Your task to perform on an android device: What's on my calendar tomorrow? Image 0: 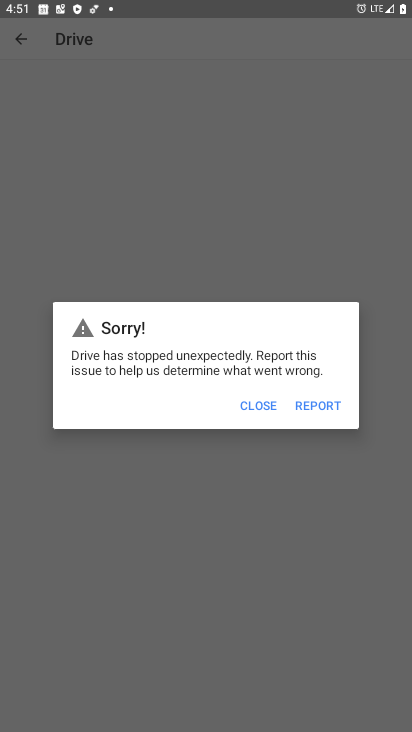
Step 0: press home button
Your task to perform on an android device: What's on my calendar tomorrow? Image 1: 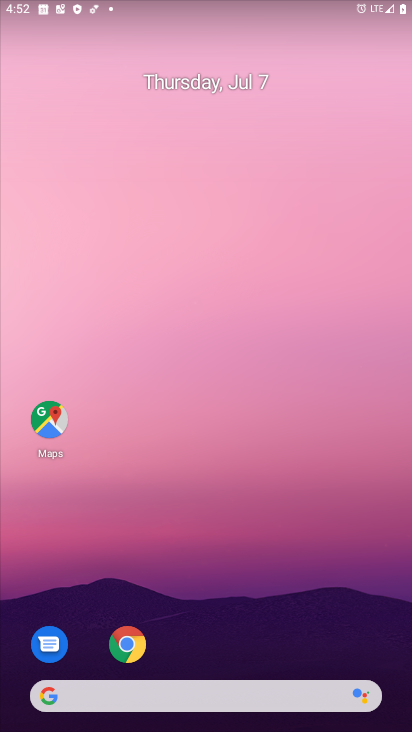
Step 1: drag from (210, 652) to (166, 212)
Your task to perform on an android device: What's on my calendar tomorrow? Image 2: 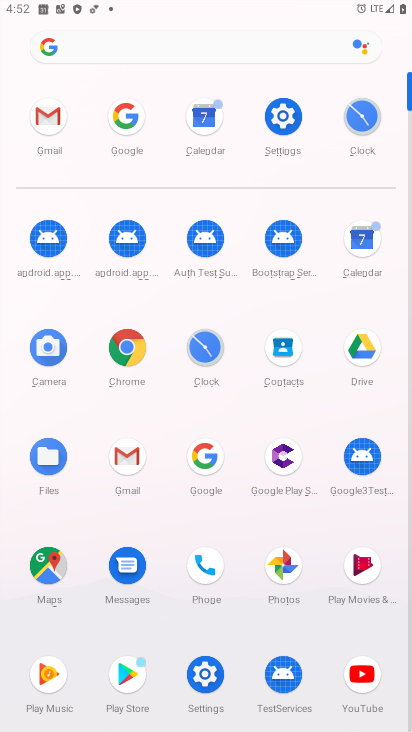
Step 2: click (362, 245)
Your task to perform on an android device: What's on my calendar tomorrow? Image 3: 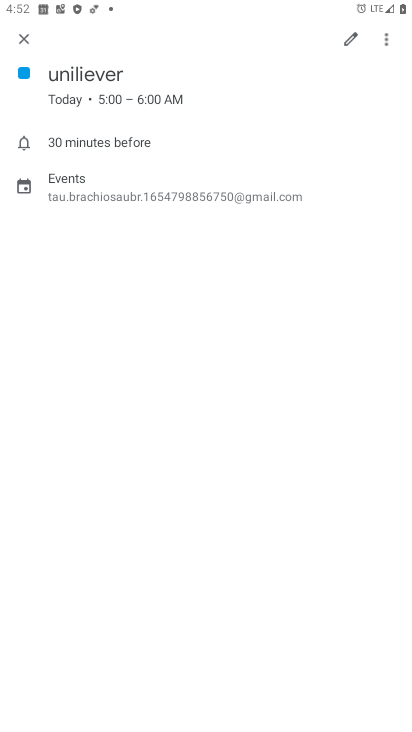
Step 3: press back button
Your task to perform on an android device: What's on my calendar tomorrow? Image 4: 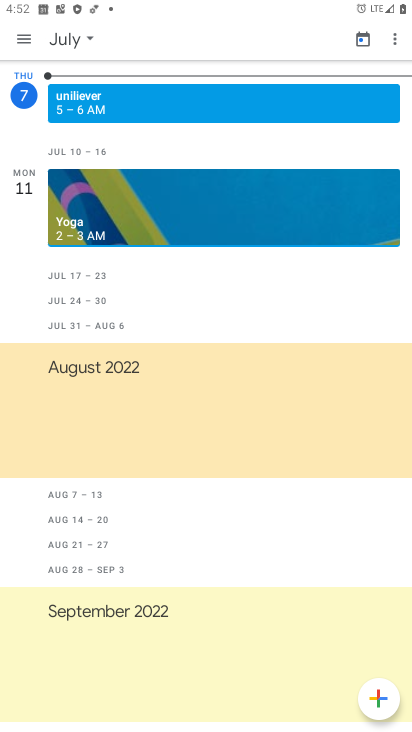
Step 4: click (79, 35)
Your task to perform on an android device: What's on my calendar tomorrow? Image 5: 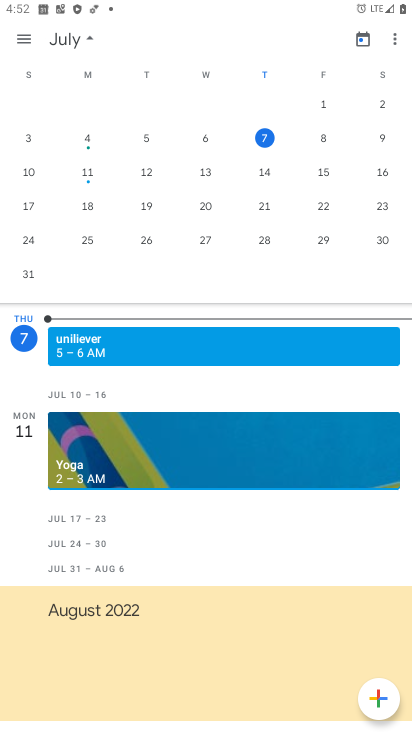
Step 5: click (317, 133)
Your task to perform on an android device: What's on my calendar tomorrow? Image 6: 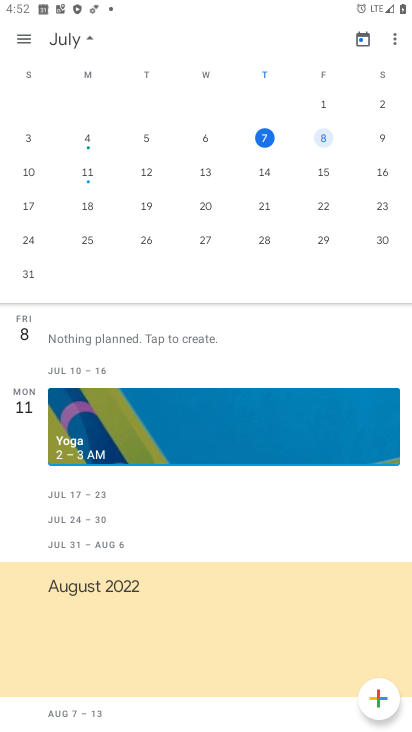
Step 6: click (23, 40)
Your task to perform on an android device: What's on my calendar tomorrow? Image 7: 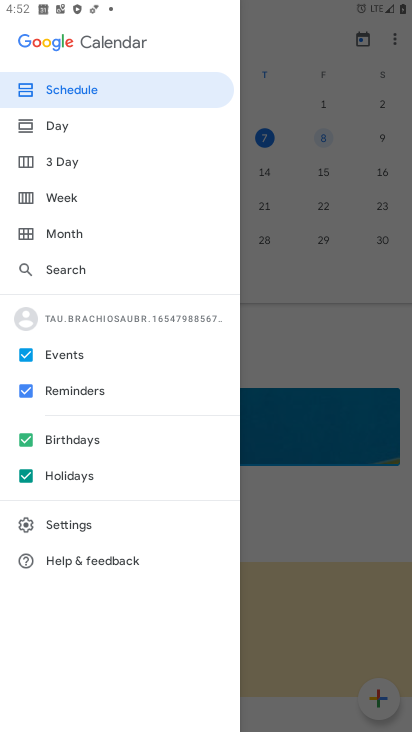
Step 7: click (47, 118)
Your task to perform on an android device: What's on my calendar tomorrow? Image 8: 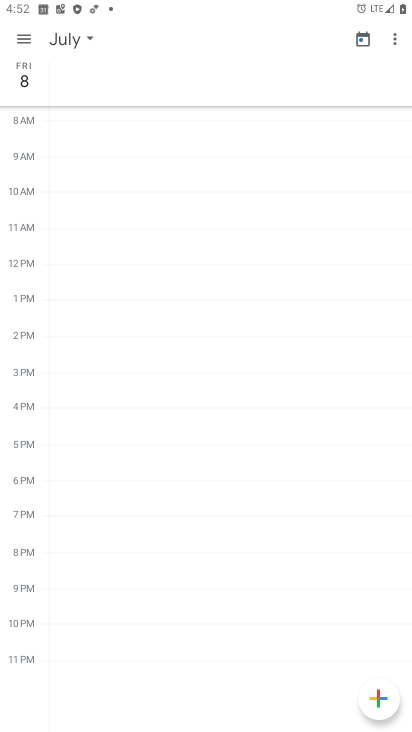
Step 8: task complete